Your task to perform on an android device: Do I have any events this weekend? Image 0: 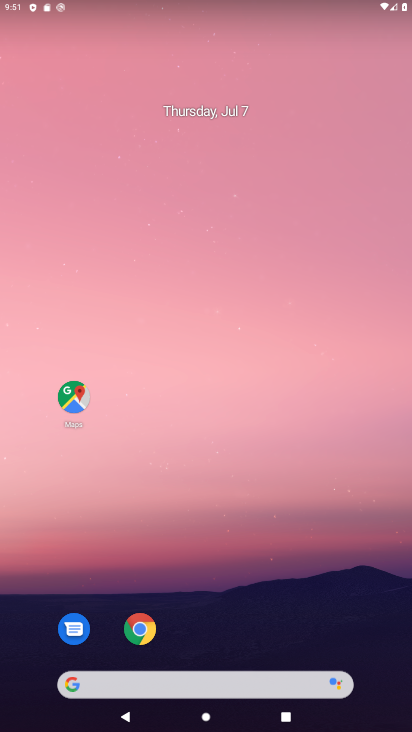
Step 0: drag from (346, 615) to (315, 0)
Your task to perform on an android device: Do I have any events this weekend? Image 1: 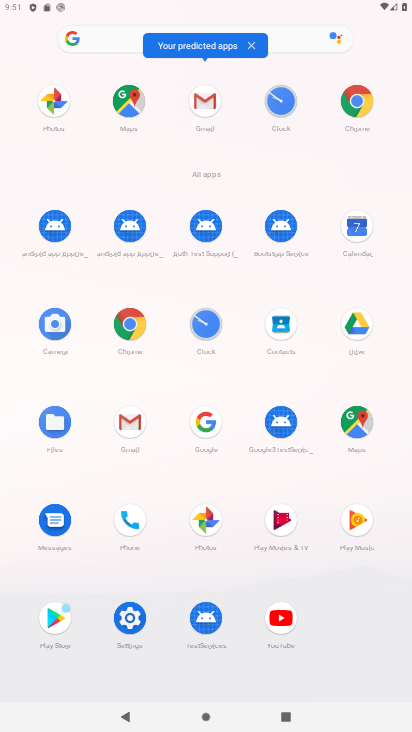
Step 1: click (353, 230)
Your task to perform on an android device: Do I have any events this weekend? Image 2: 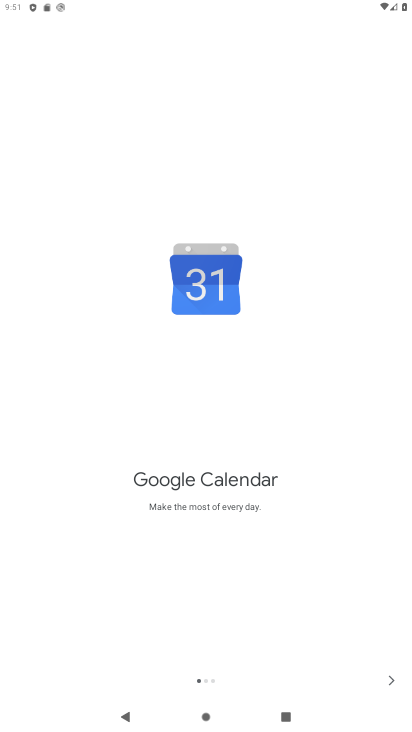
Step 2: click (390, 676)
Your task to perform on an android device: Do I have any events this weekend? Image 3: 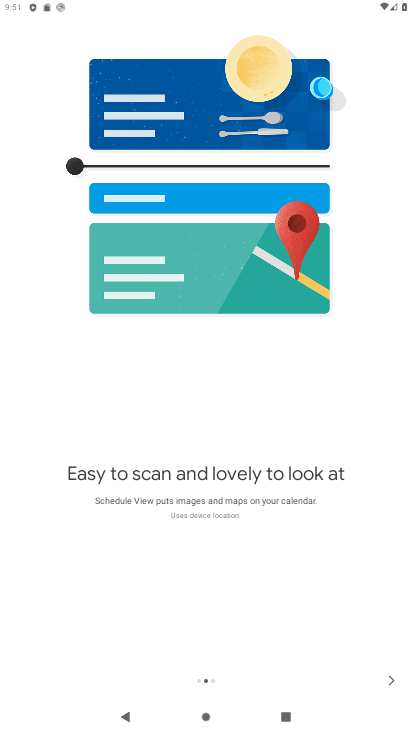
Step 3: click (390, 676)
Your task to perform on an android device: Do I have any events this weekend? Image 4: 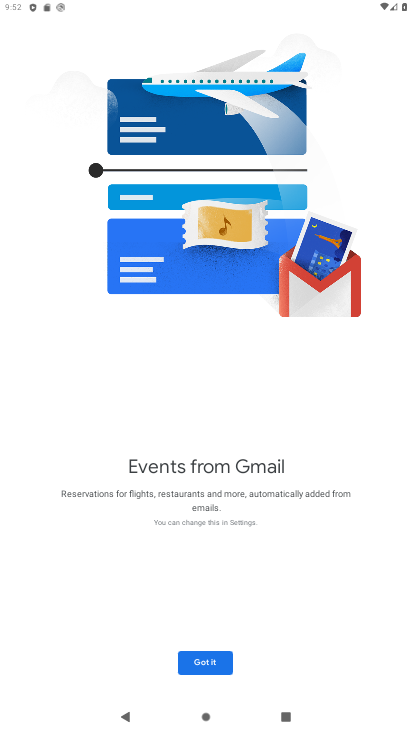
Step 4: click (199, 666)
Your task to perform on an android device: Do I have any events this weekend? Image 5: 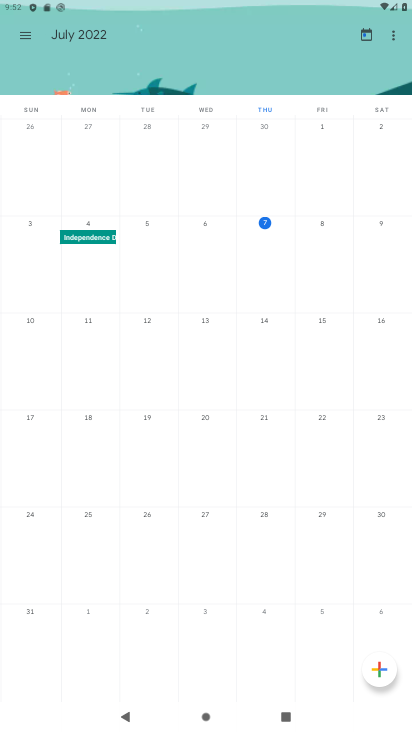
Step 5: click (23, 35)
Your task to perform on an android device: Do I have any events this weekend? Image 6: 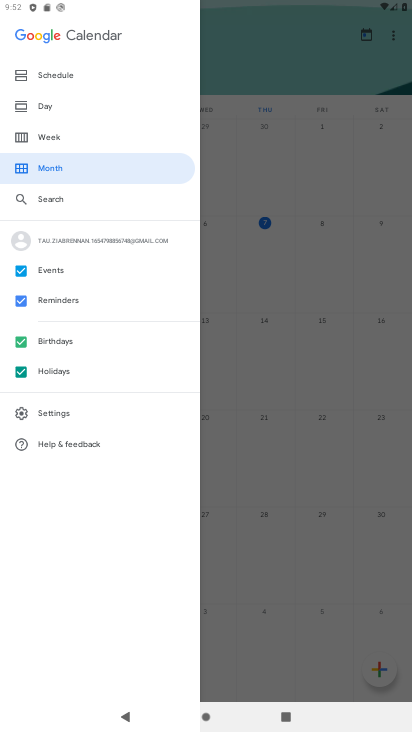
Step 6: click (51, 132)
Your task to perform on an android device: Do I have any events this weekend? Image 7: 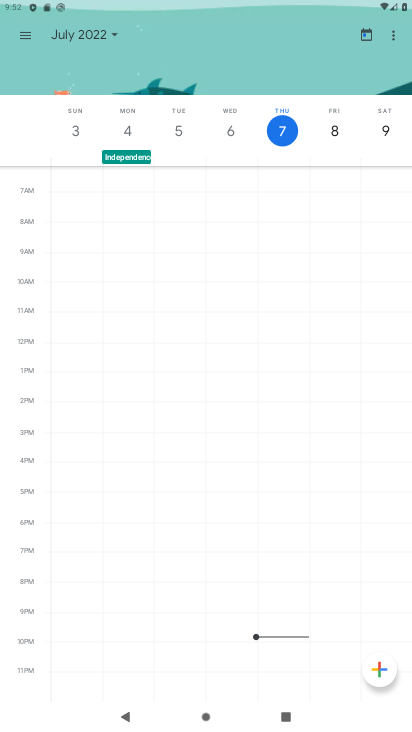
Step 7: click (170, 558)
Your task to perform on an android device: Do I have any events this weekend? Image 8: 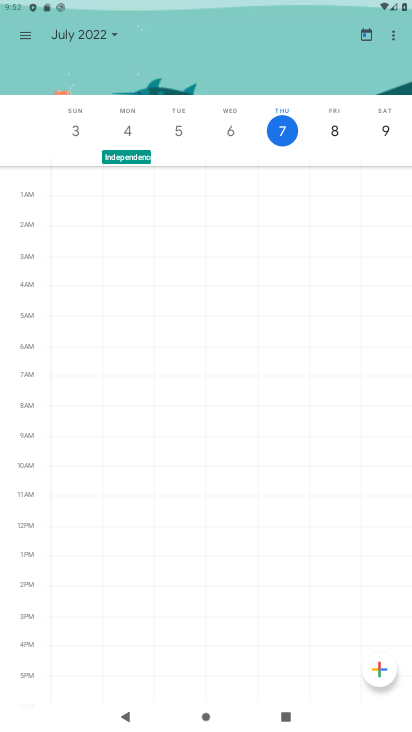
Step 8: task complete